Your task to perform on an android device: open sync settings in chrome Image 0: 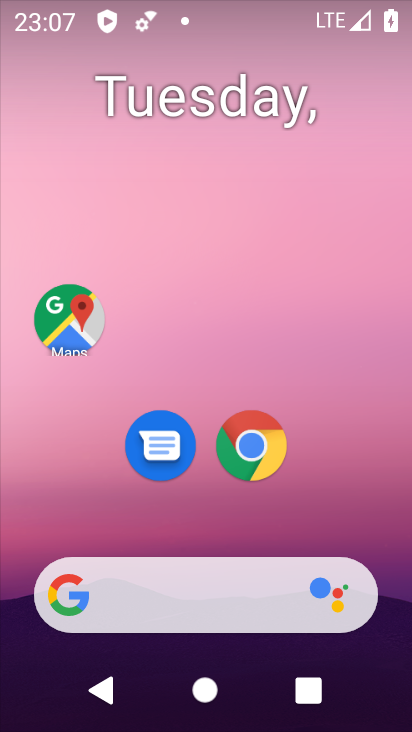
Step 0: click (243, 436)
Your task to perform on an android device: open sync settings in chrome Image 1: 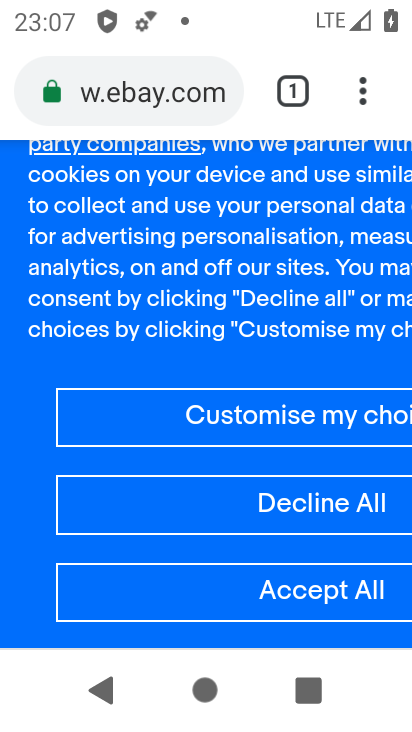
Step 1: click (359, 88)
Your task to perform on an android device: open sync settings in chrome Image 2: 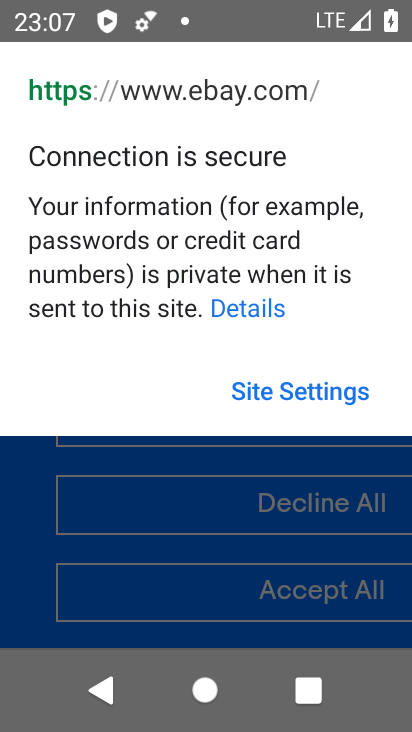
Step 2: click (245, 518)
Your task to perform on an android device: open sync settings in chrome Image 3: 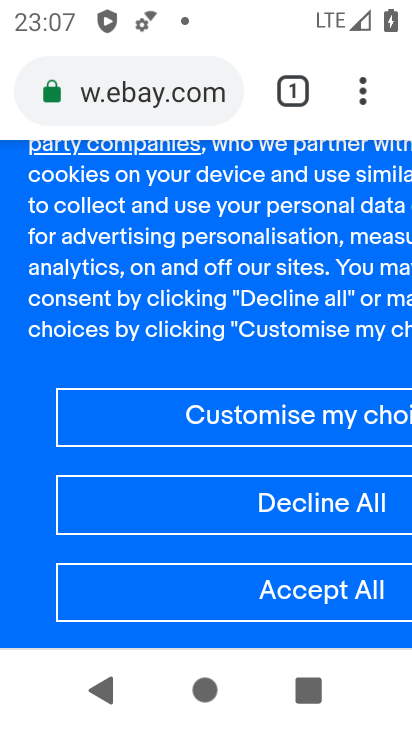
Step 3: click (359, 87)
Your task to perform on an android device: open sync settings in chrome Image 4: 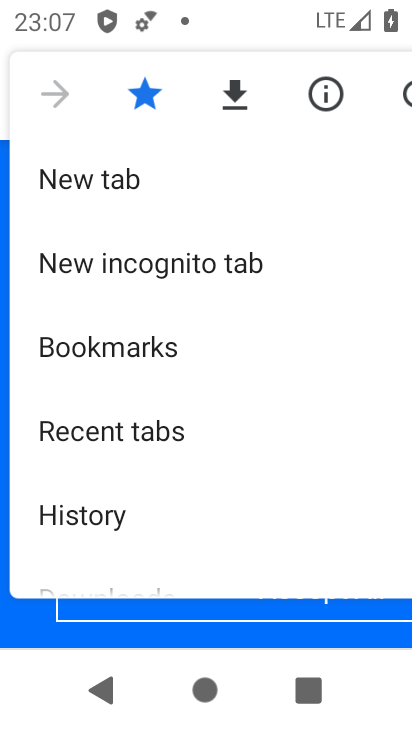
Step 4: drag from (195, 515) to (164, 215)
Your task to perform on an android device: open sync settings in chrome Image 5: 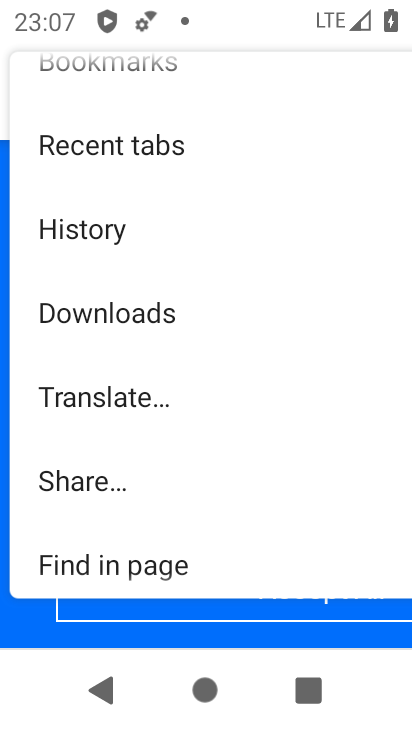
Step 5: drag from (153, 526) to (134, 343)
Your task to perform on an android device: open sync settings in chrome Image 6: 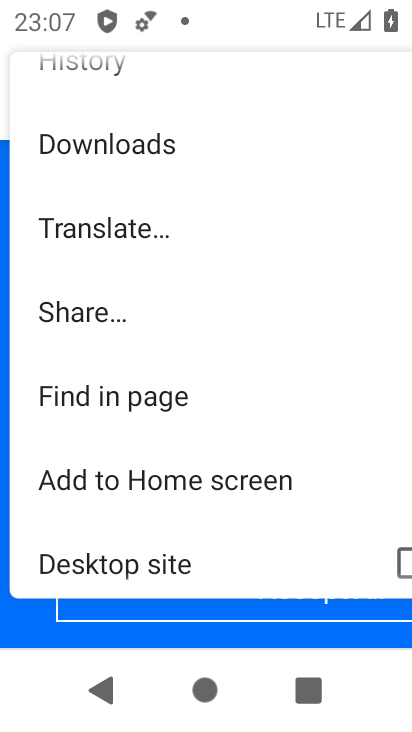
Step 6: drag from (123, 544) to (116, 216)
Your task to perform on an android device: open sync settings in chrome Image 7: 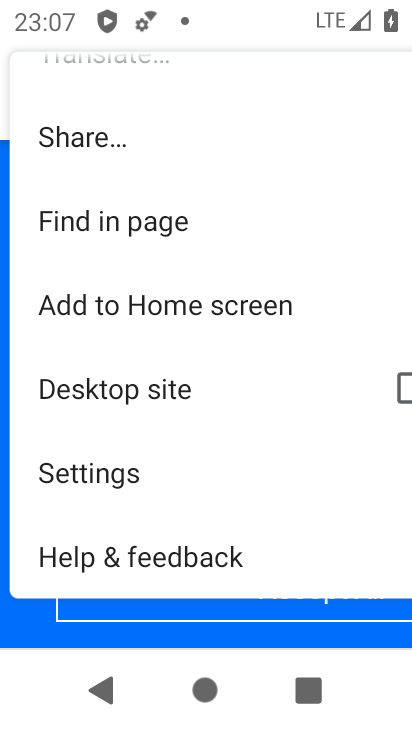
Step 7: click (131, 471)
Your task to perform on an android device: open sync settings in chrome Image 8: 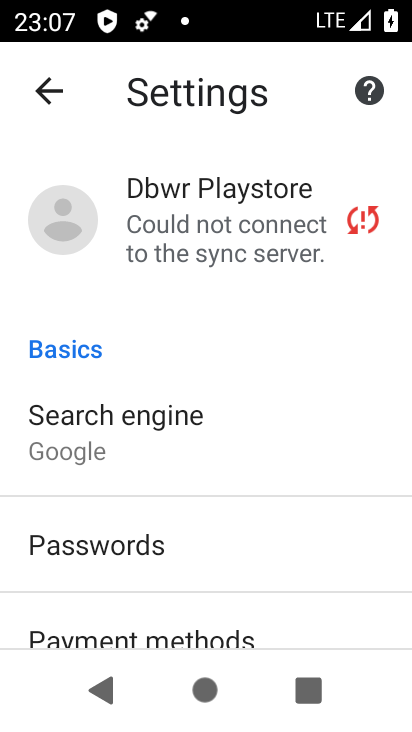
Step 8: click (195, 257)
Your task to perform on an android device: open sync settings in chrome Image 9: 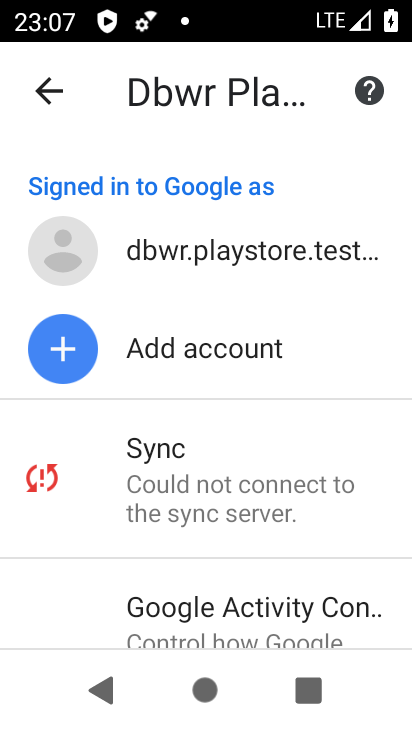
Step 9: click (196, 503)
Your task to perform on an android device: open sync settings in chrome Image 10: 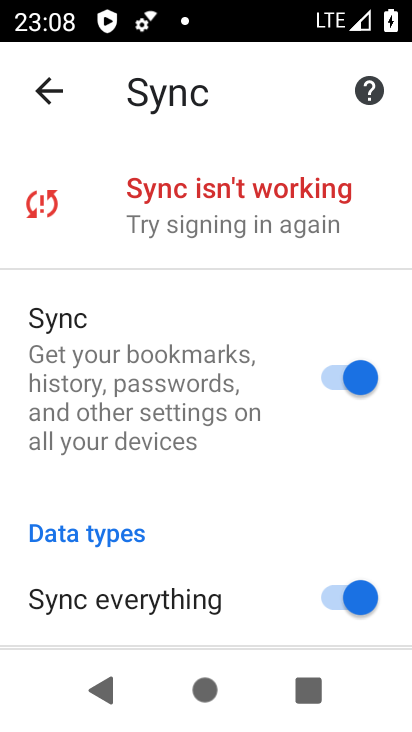
Step 10: task complete